Your task to perform on an android device: Show me popular videos on Youtube Image 0: 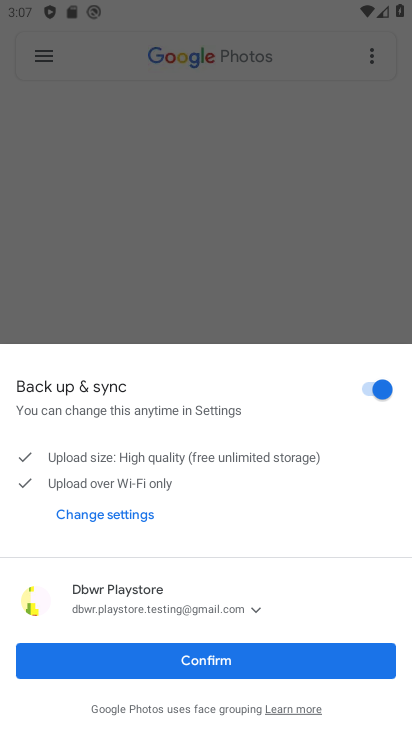
Step 0: click (281, 651)
Your task to perform on an android device: Show me popular videos on Youtube Image 1: 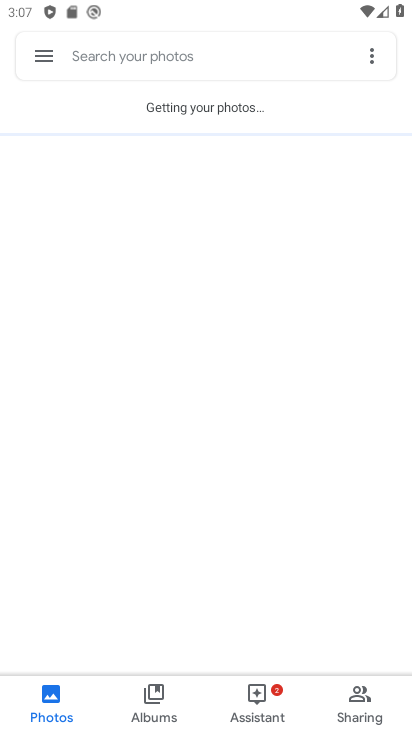
Step 1: press home button
Your task to perform on an android device: Show me popular videos on Youtube Image 2: 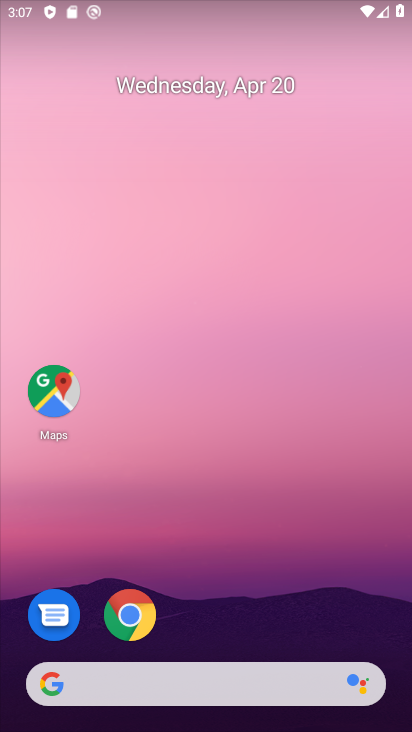
Step 2: drag from (273, 597) to (355, 30)
Your task to perform on an android device: Show me popular videos on Youtube Image 3: 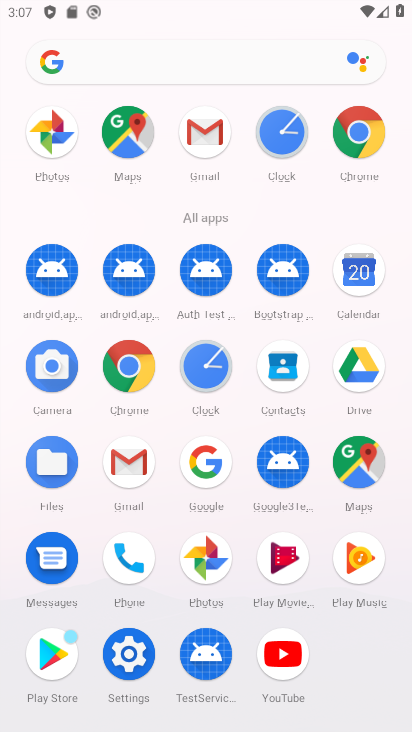
Step 3: click (303, 643)
Your task to perform on an android device: Show me popular videos on Youtube Image 4: 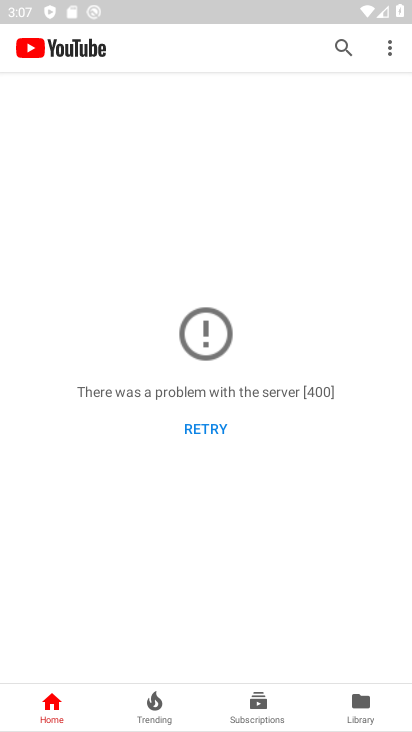
Step 4: task complete